Your task to perform on an android device: change alarm snooze length Image 0: 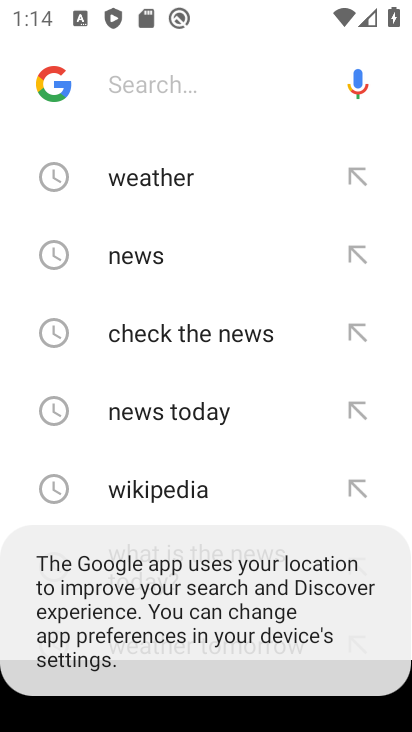
Step 0: press home button
Your task to perform on an android device: change alarm snooze length Image 1: 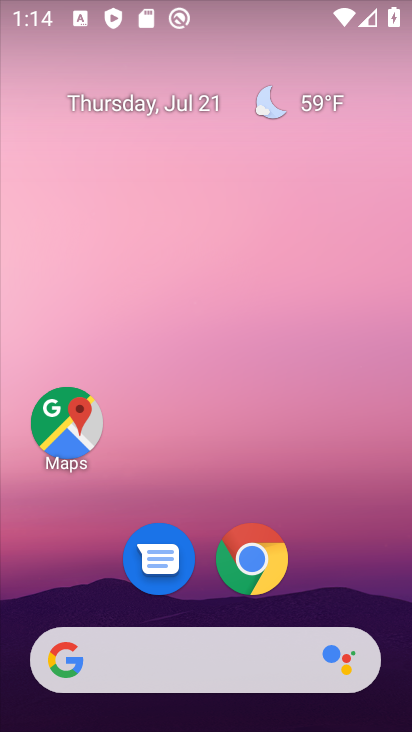
Step 1: drag from (229, 608) to (189, 84)
Your task to perform on an android device: change alarm snooze length Image 2: 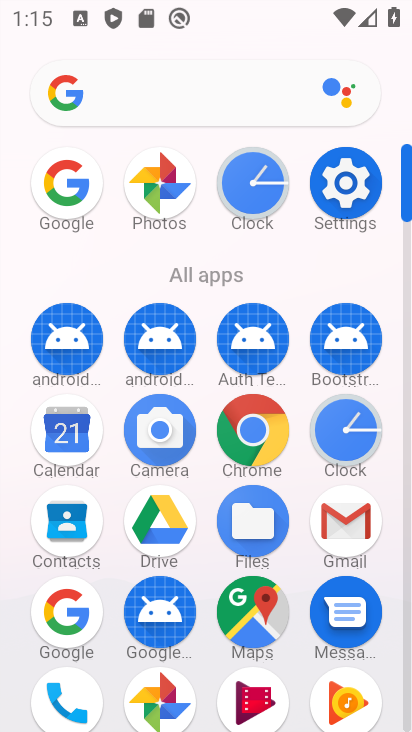
Step 2: click (262, 203)
Your task to perform on an android device: change alarm snooze length Image 3: 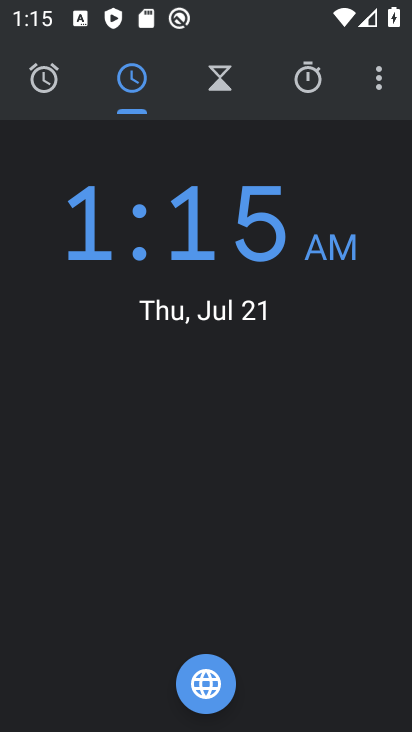
Step 3: click (379, 95)
Your task to perform on an android device: change alarm snooze length Image 4: 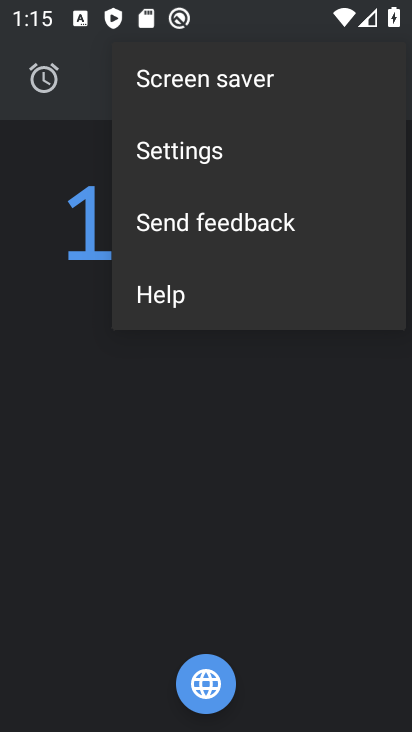
Step 4: click (221, 149)
Your task to perform on an android device: change alarm snooze length Image 5: 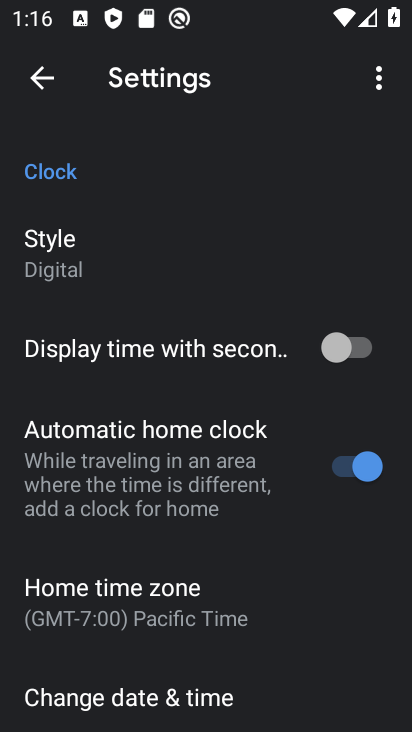
Step 5: drag from (179, 562) to (212, 88)
Your task to perform on an android device: change alarm snooze length Image 6: 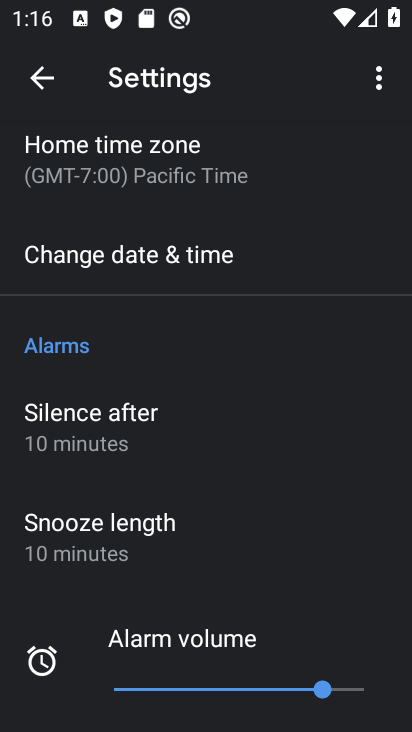
Step 6: click (148, 547)
Your task to perform on an android device: change alarm snooze length Image 7: 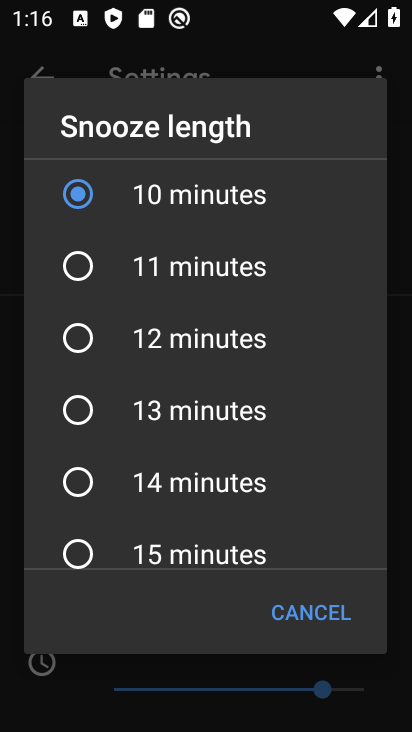
Step 7: click (86, 332)
Your task to perform on an android device: change alarm snooze length Image 8: 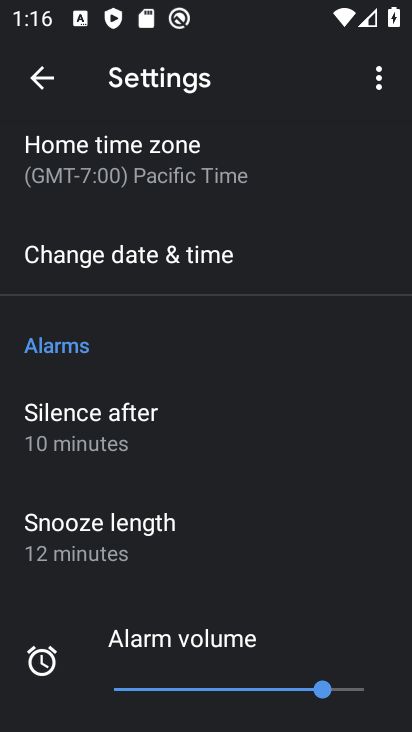
Step 8: task complete